Your task to perform on an android device: turn off priority inbox in the gmail app Image 0: 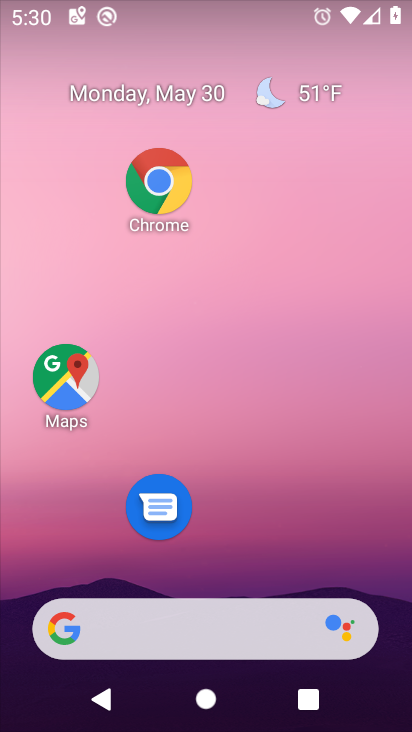
Step 0: drag from (289, 568) to (259, 98)
Your task to perform on an android device: turn off priority inbox in the gmail app Image 1: 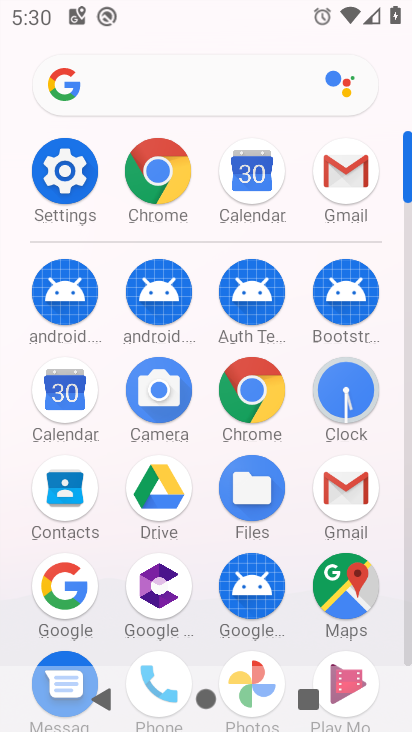
Step 1: click (370, 492)
Your task to perform on an android device: turn off priority inbox in the gmail app Image 2: 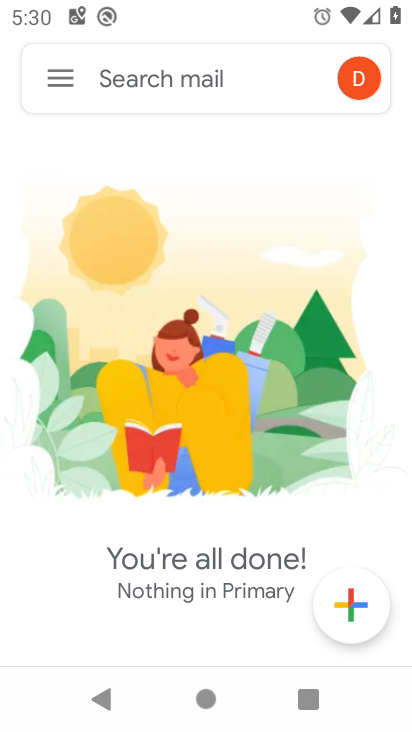
Step 2: click (47, 101)
Your task to perform on an android device: turn off priority inbox in the gmail app Image 3: 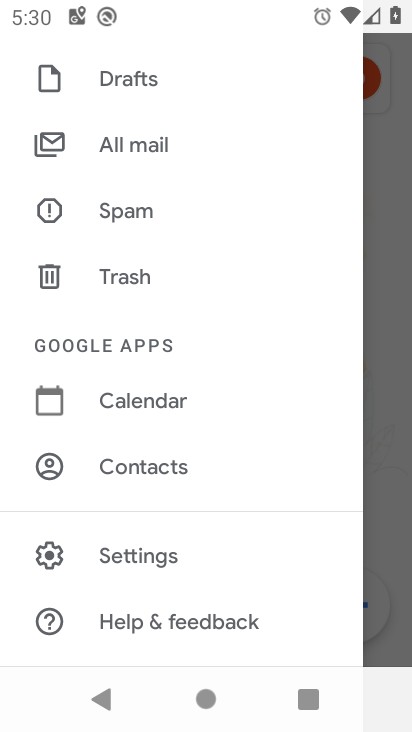
Step 3: click (129, 555)
Your task to perform on an android device: turn off priority inbox in the gmail app Image 4: 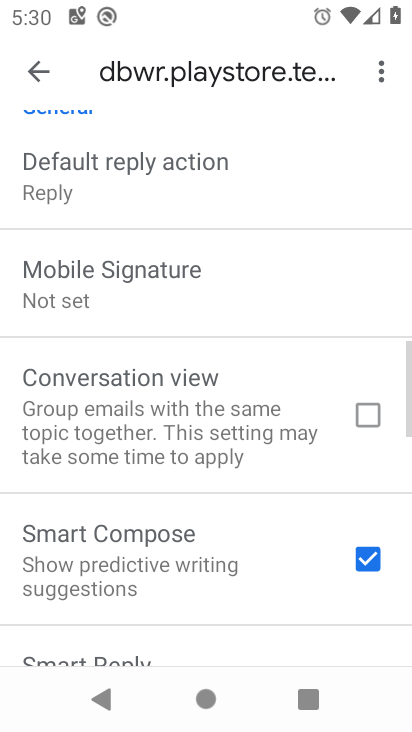
Step 4: drag from (188, 143) to (200, 528)
Your task to perform on an android device: turn off priority inbox in the gmail app Image 5: 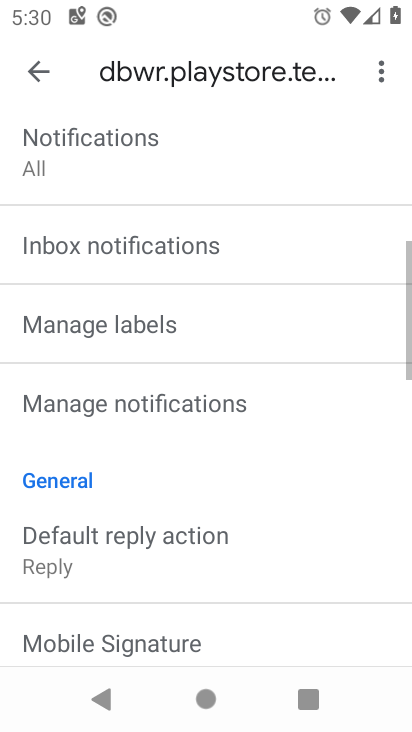
Step 5: drag from (211, 233) to (198, 663)
Your task to perform on an android device: turn off priority inbox in the gmail app Image 6: 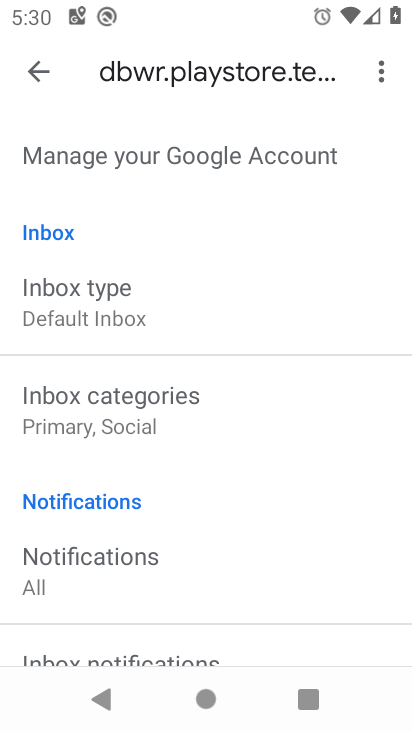
Step 6: click (164, 295)
Your task to perform on an android device: turn off priority inbox in the gmail app Image 7: 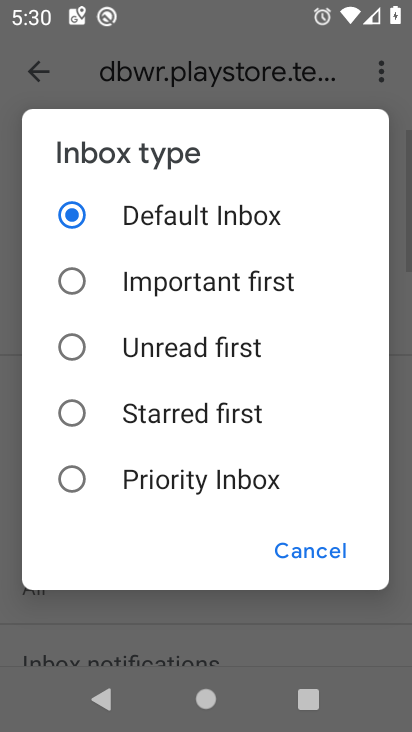
Step 7: click (153, 220)
Your task to perform on an android device: turn off priority inbox in the gmail app Image 8: 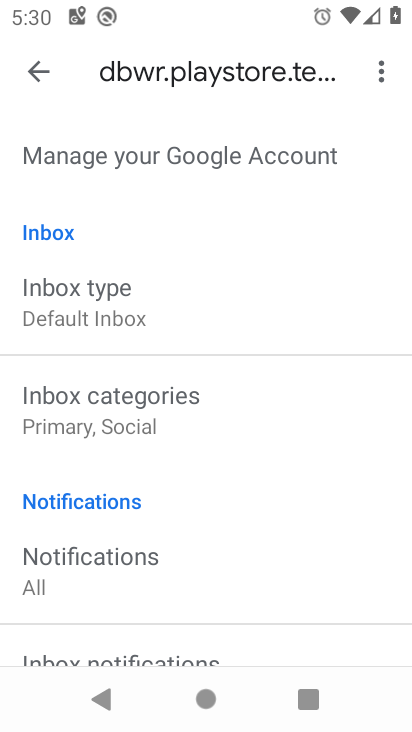
Step 8: task complete